Your task to perform on an android device: turn off picture-in-picture Image 0: 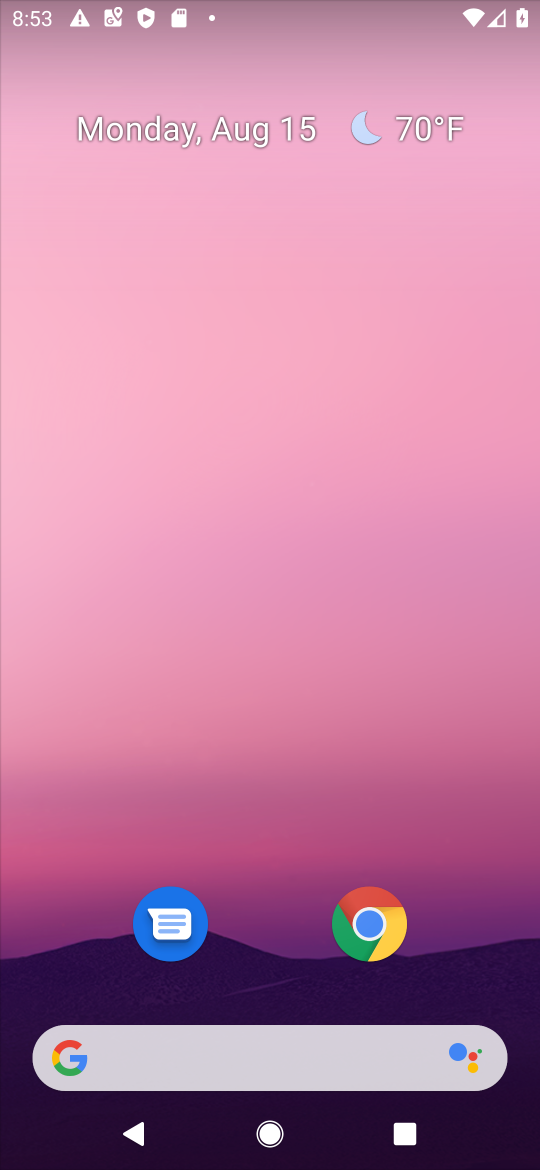
Step 0: drag from (502, 982) to (460, 233)
Your task to perform on an android device: turn off picture-in-picture Image 1: 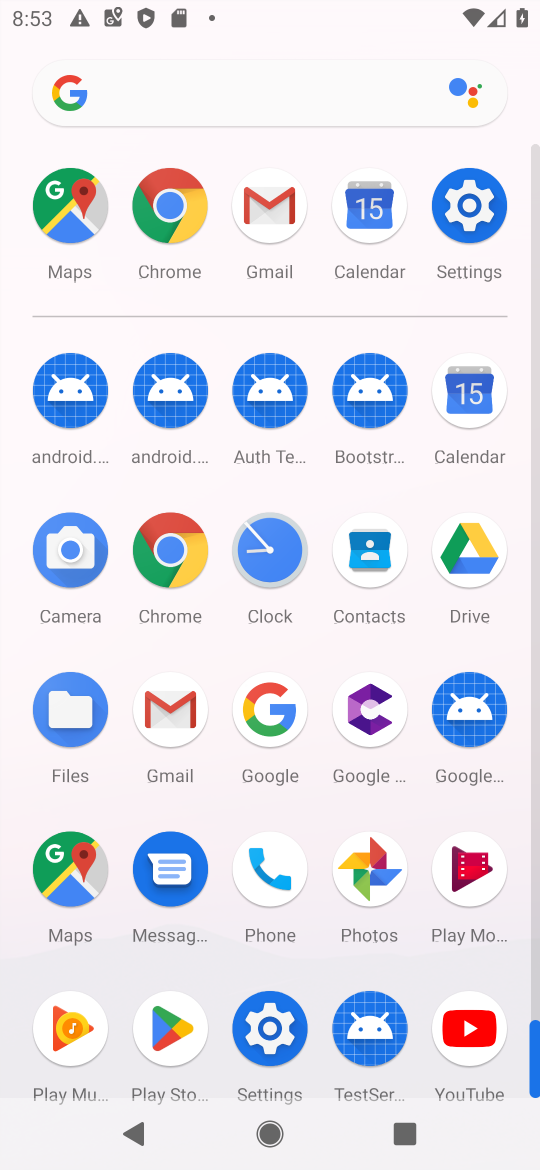
Step 1: click (271, 1025)
Your task to perform on an android device: turn off picture-in-picture Image 2: 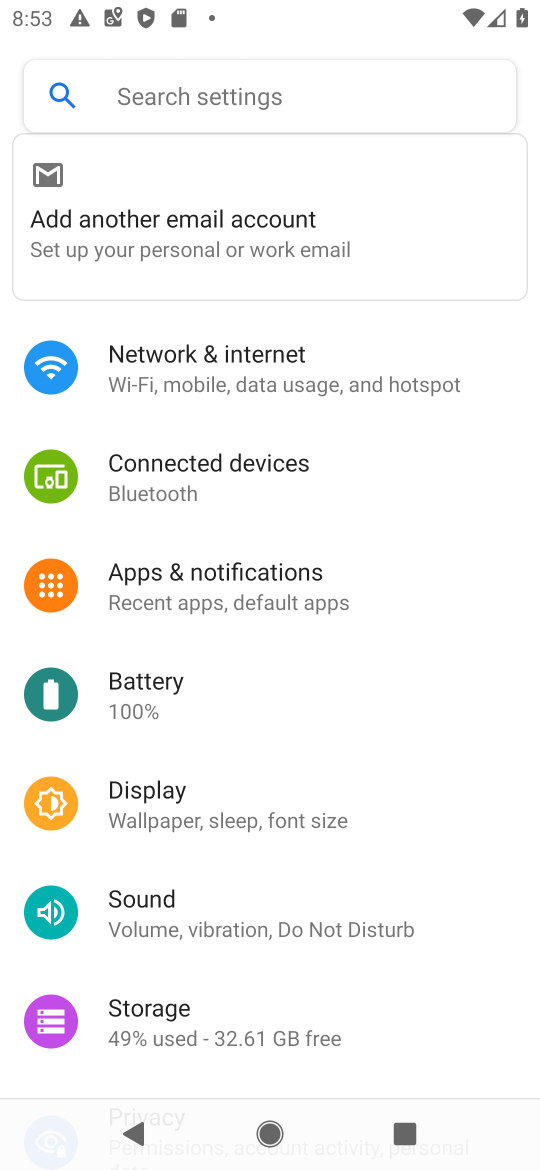
Step 2: drag from (412, 978) to (387, 469)
Your task to perform on an android device: turn off picture-in-picture Image 3: 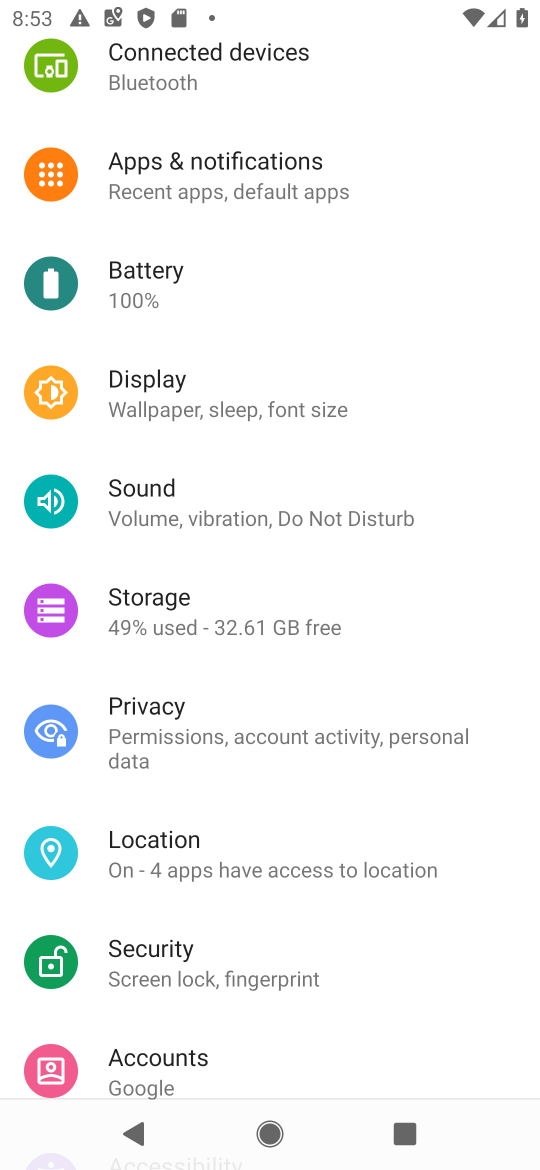
Step 3: drag from (337, 1035) to (359, 446)
Your task to perform on an android device: turn off picture-in-picture Image 4: 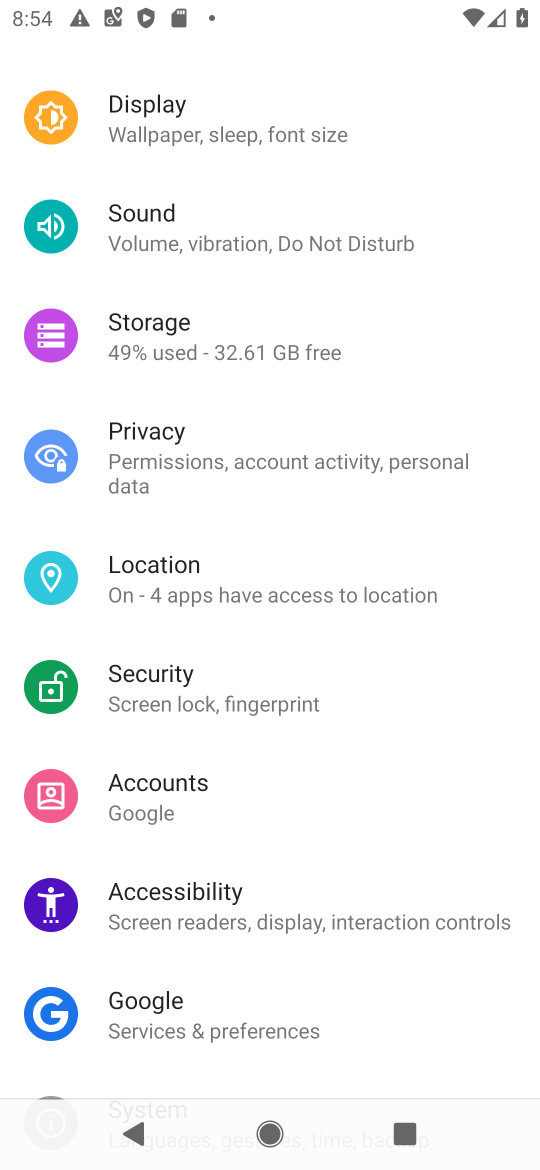
Step 4: drag from (342, 973) to (307, 395)
Your task to perform on an android device: turn off picture-in-picture Image 5: 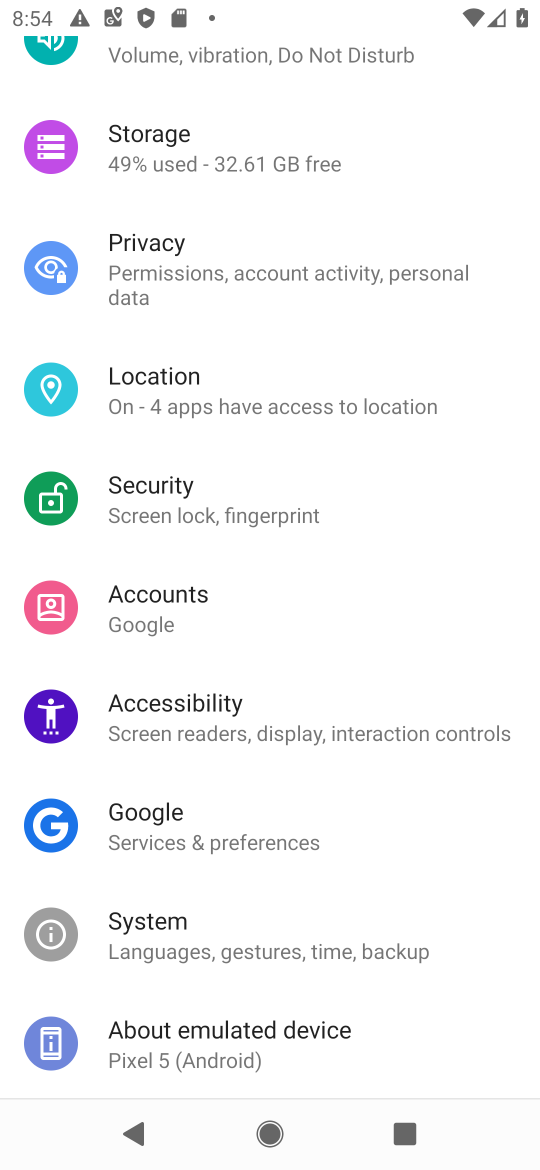
Step 5: drag from (376, 212) to (434, 632)
Your task to perform on an android device: turn off picture-in-picture Image 6: 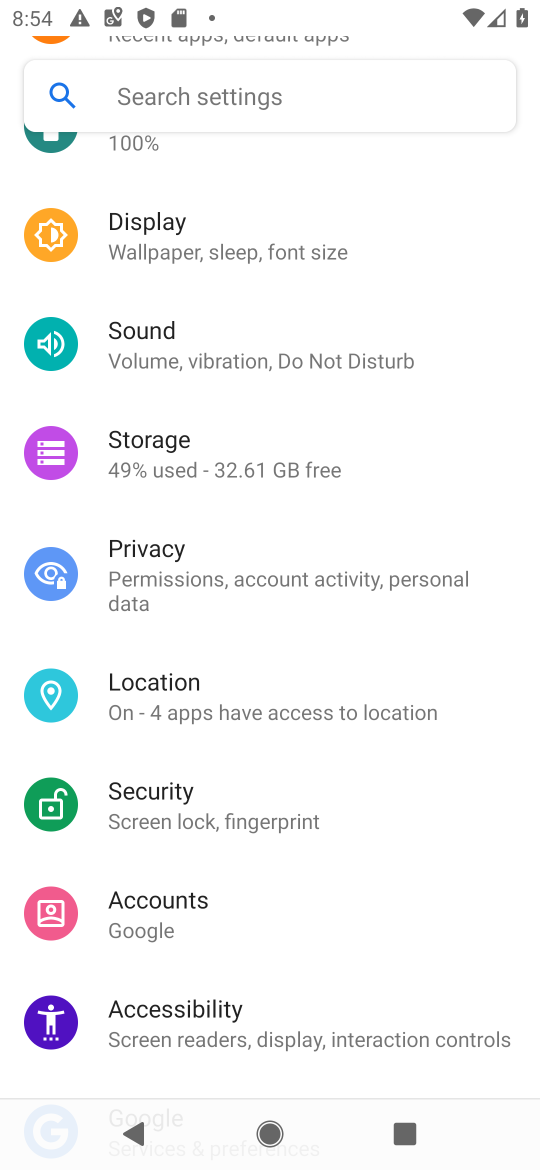
Step 6: drag from (438, 227) to (432, 798)
Your task to perform on an android device: turn off picture-in-picture Image 7: 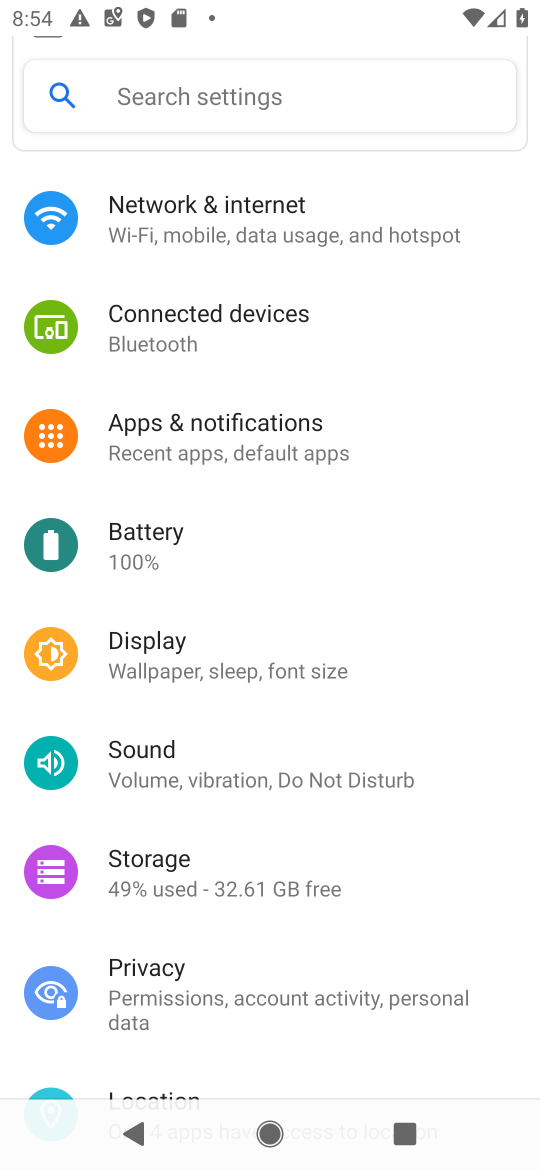
Step 7: click (187, 418)
Your task to perform on an android device: turn off picture-in-picture Image 8: 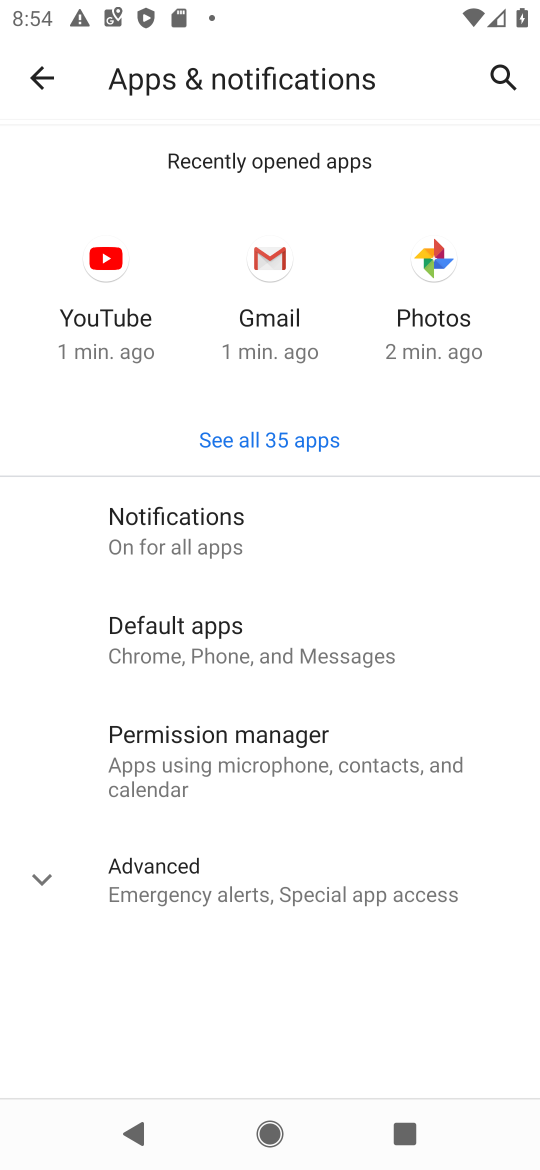
Step 8: click (71, 885)
Your task to perform on an android device: turn off picture-in-picture Image 9: 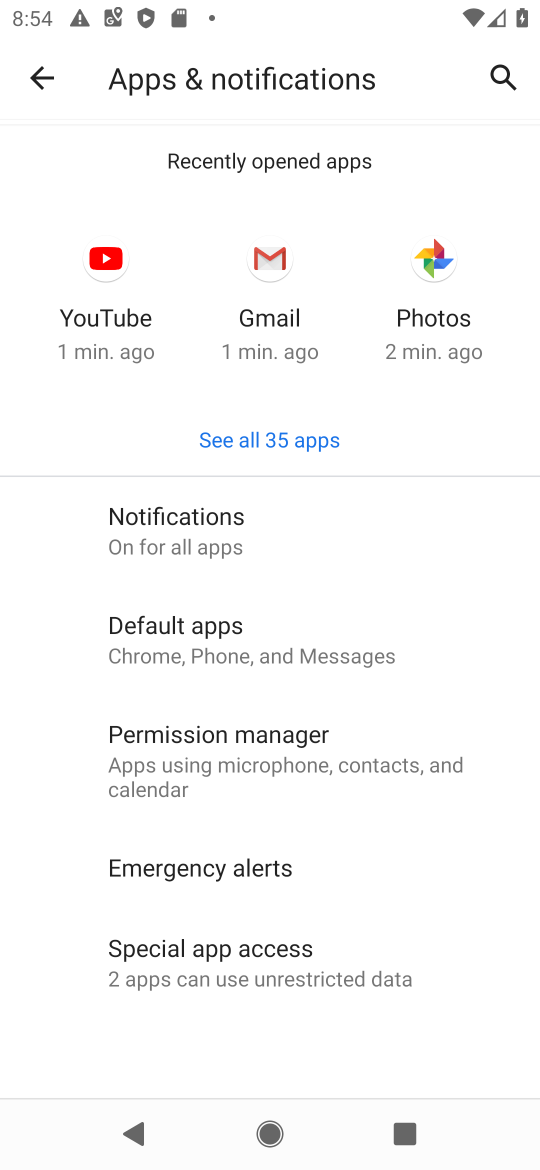
Step 9: click (227, 975)
Your task to perform on an android device: turn off picture-in-picture Image 10: 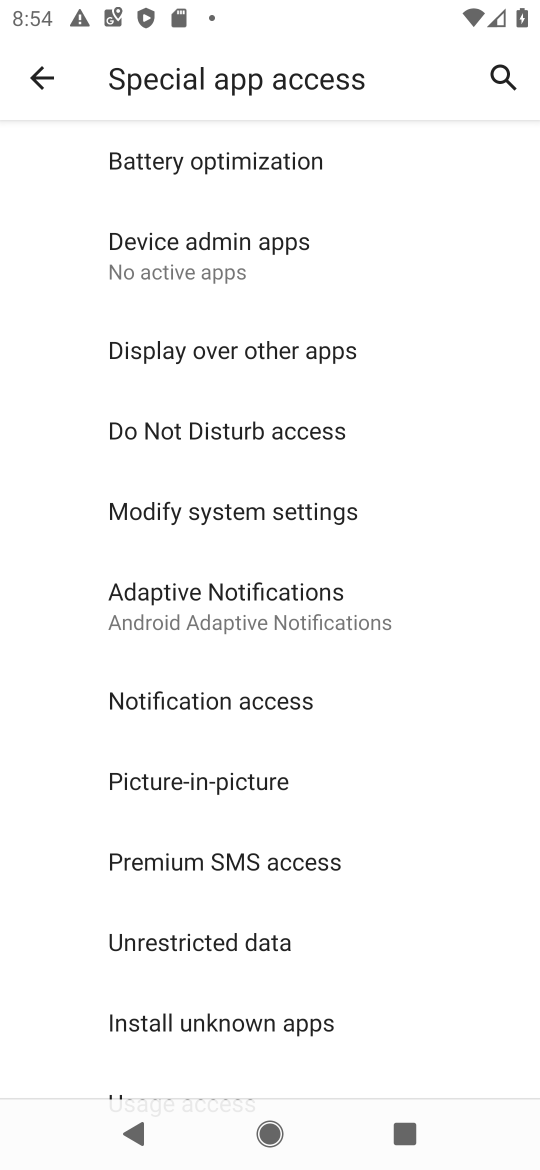
Step 10: click (196, 783)
Your task to perform on an android device: turn off picture-in-picture Image 11: 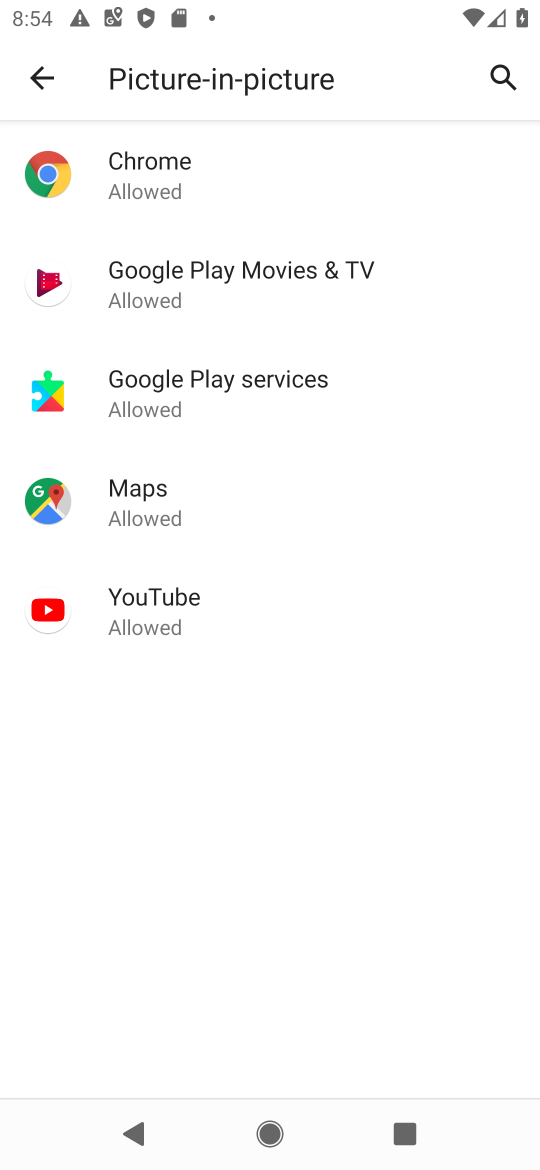
Step 11: click (156, 615)
Your task to perform on an android device: turn off picture-in-picture Image 12: 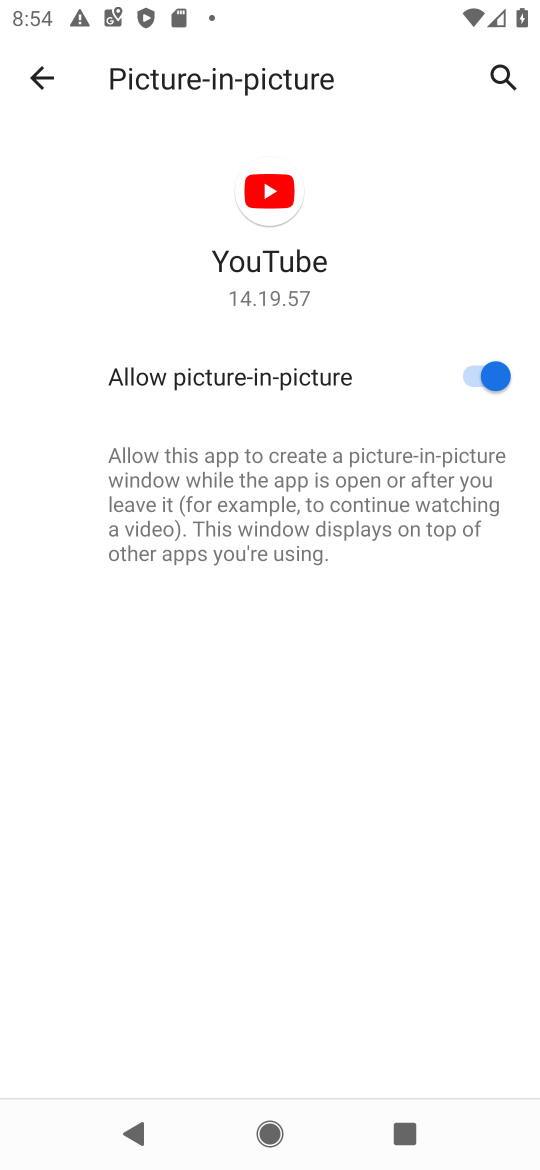
Step 12: click (470, 379)
Your task to perform on an android device: turn off picture-in-picture Image 13: 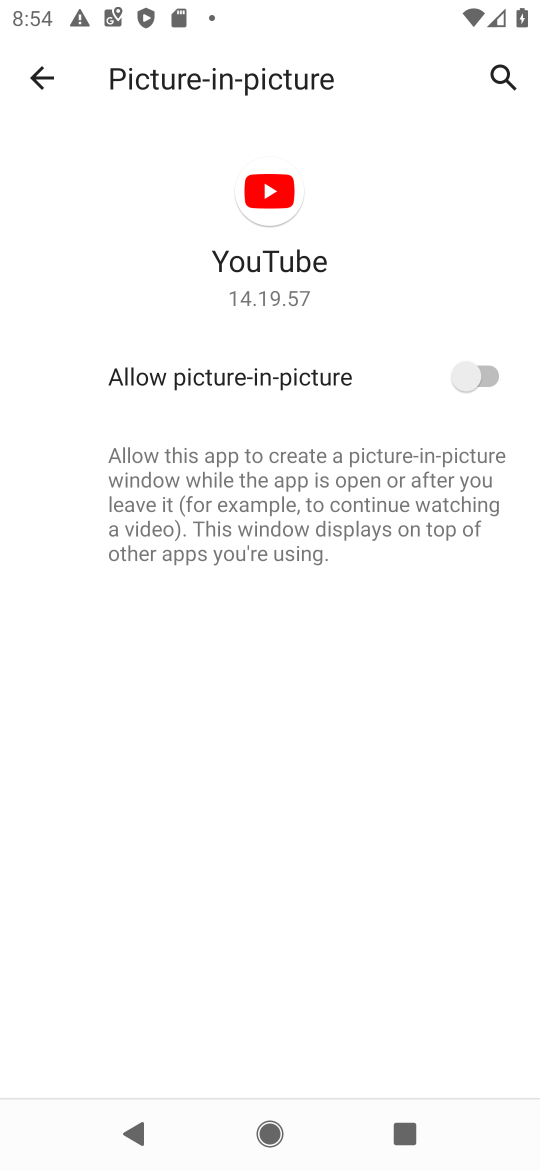
Step 13: task complete